Your task to perform on an android device: turn on priority inbox in the gmail app Image 0: 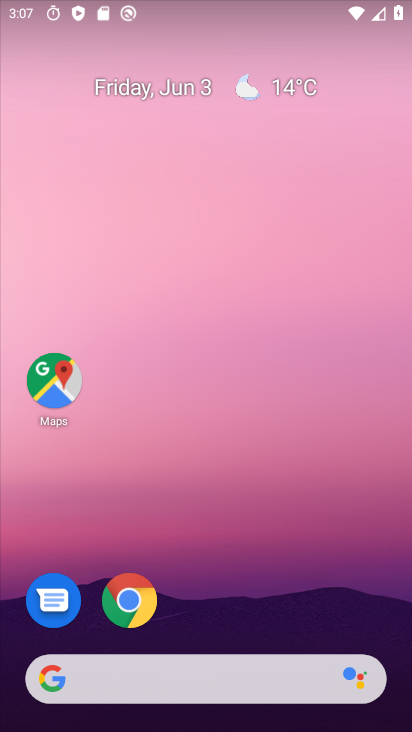
Step 0: drag from (257, 559) to (222, 14)
Your task to perform on an android device: turn on priority inbox in the gmail app Image 1: 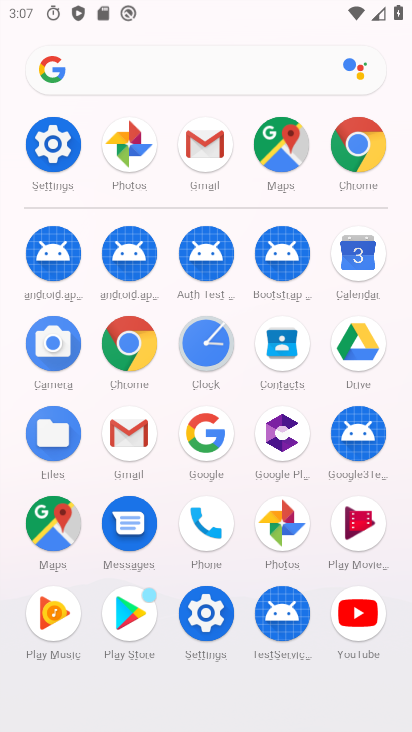
Step 1: drag from (9, 463) to (33, 201)
Your task to perform on an android device: turn on priority inbox in the gmail app Image 2: 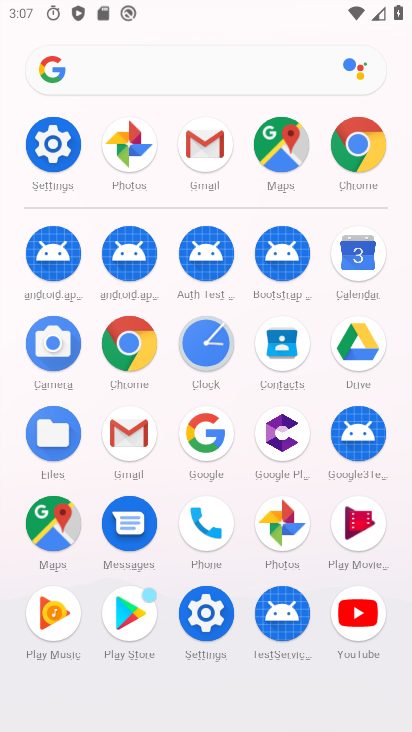
Step 2: click (129, 430)
Your task to perform on an android device: turn on priority inbox in the gmail app Image 3: 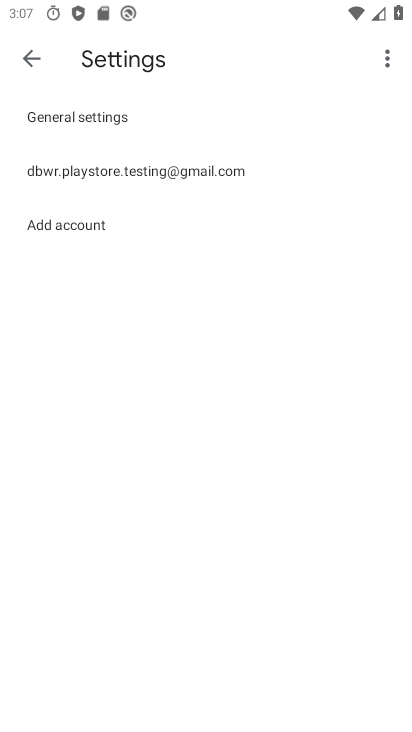
Step 3: click (28, 61)
Your task to perform on an android device: turn on priority inbox in the gmail app Image 4: 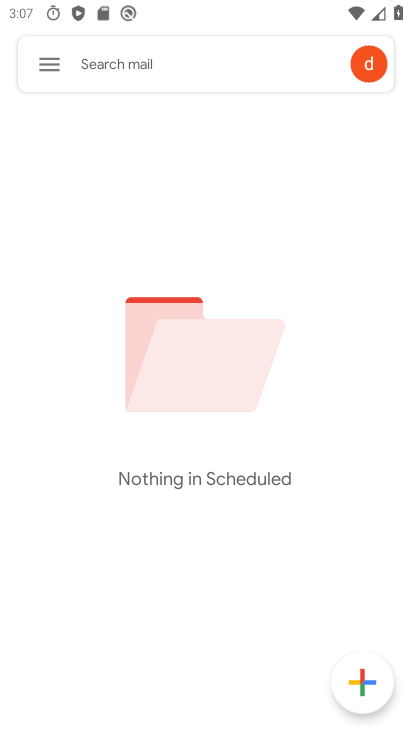
Step 4: click (55, 69)
Your task to perform on an android device: turn on priority inbox in the gmail app Image 5: 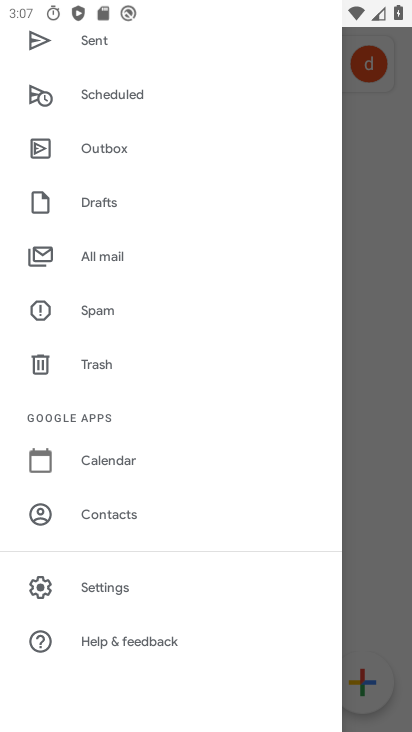
Step 5: click (108, 573)
Your task to perform on an android device: turn on priority inbox in the gmail app Image 6: 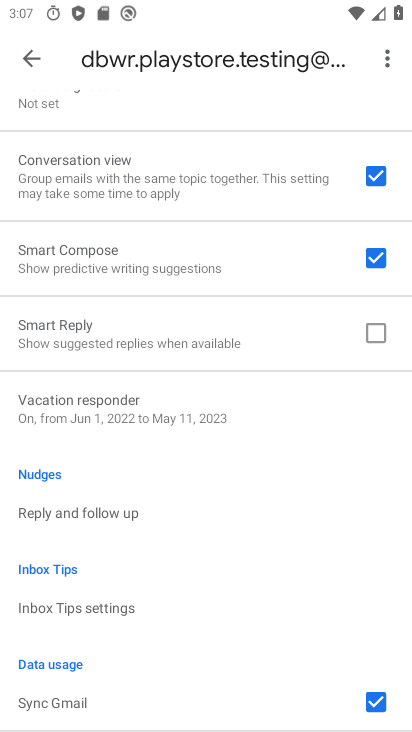
Step 6: drag from (205, 169) to (192, 609)
Your task to perform on an android device: turn on priority inbox in the gmail app Image 7: 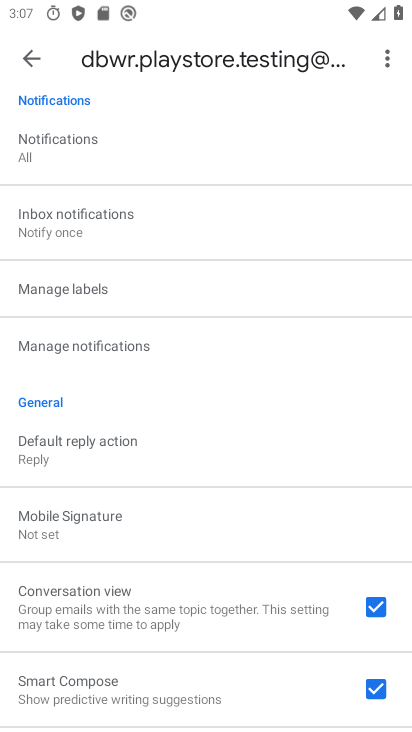
Step 7: drag from (205, 202) to (218, 641)
Your task to perform on an android device: turn on priority inbox in the gmail app Image 8: 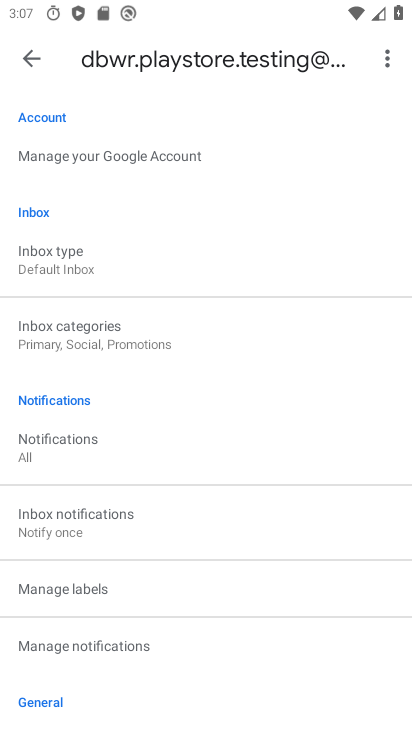
Step 8: click (118, 259)
Your task to perform on an android device: turn on priority inbox in the gmail app Image 9: 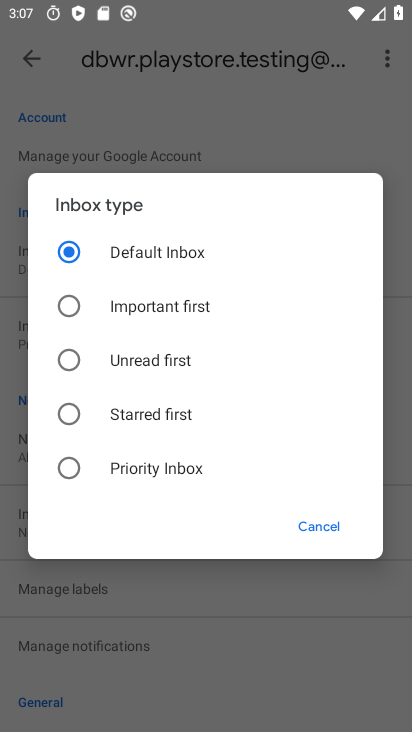
Step 9: click (124, 472)
Your task to perform on an android device: turn on priority inbox in the gmail app Image 10: 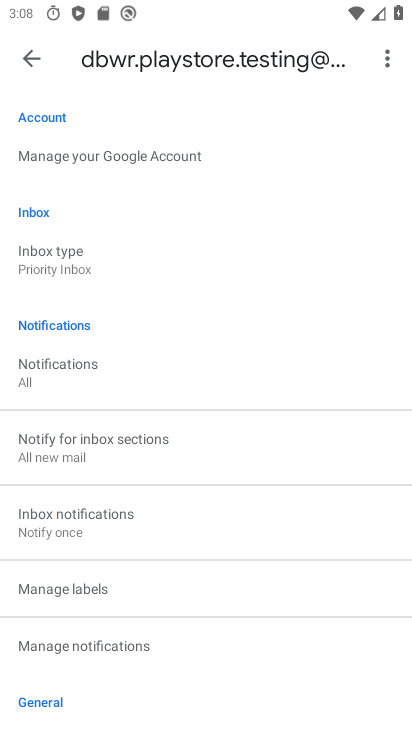
Step 10: task complete